Your task to perform on an android device: Open network settings Image 0: 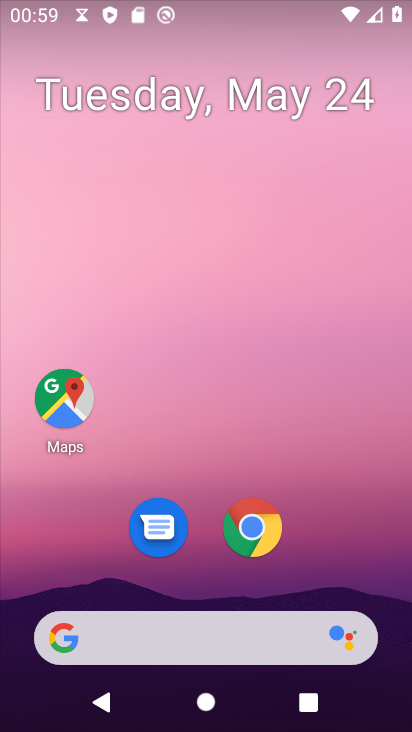
Step 0: press home button
Your task to perform on an android device: Open network settings Image 1: 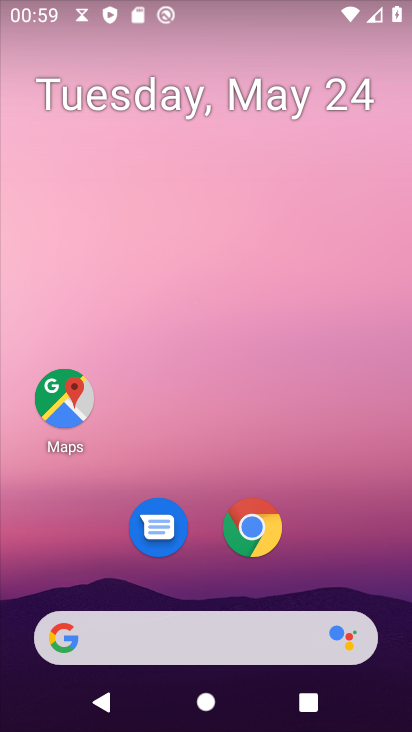
Step 1: drag from (203, 633) to (304, 137)
Your task to perform on an android device: Open network settings Image 2: 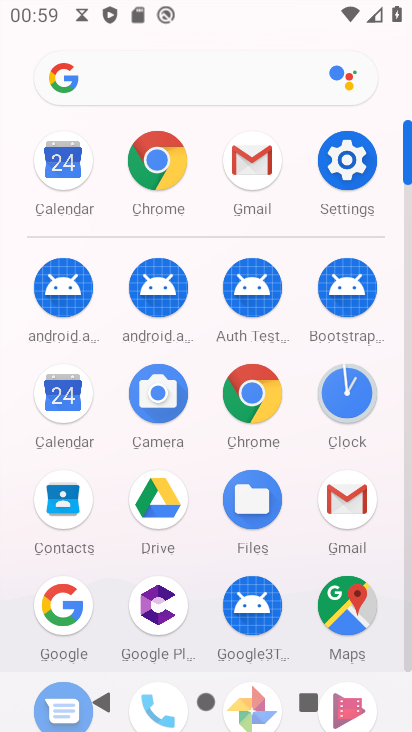
Step 2: click (360, 171)
Your task to perform on an android device: Open network settings Image 3: 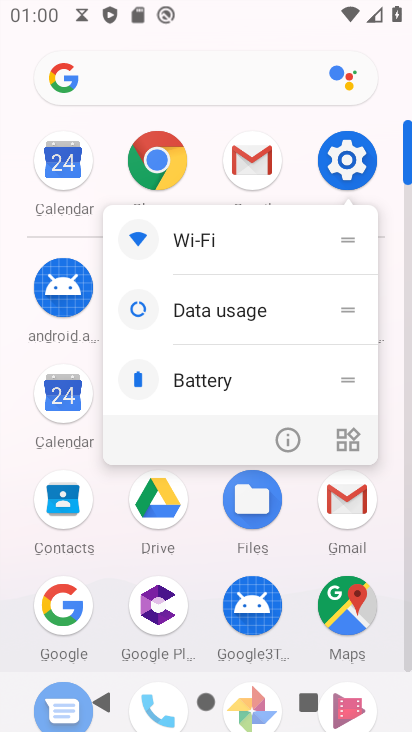
Step 3: click (360, 166)
Your task to perform on an android device: Open network settings Image 4: 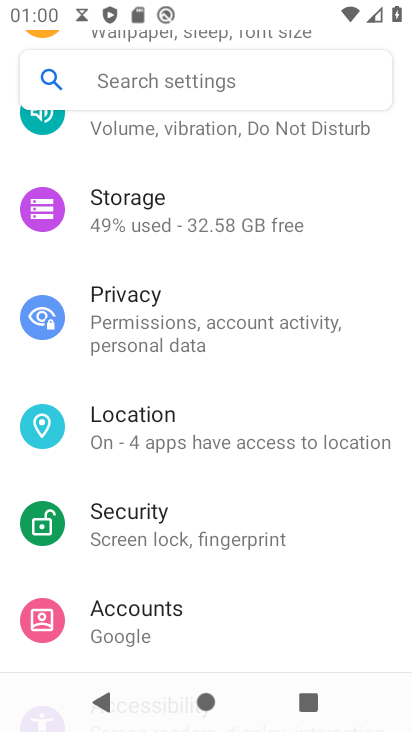
Step 4: drag from (331, 162) to (251, 561)
Your task to perform on an android device: Open network settings Image 5: 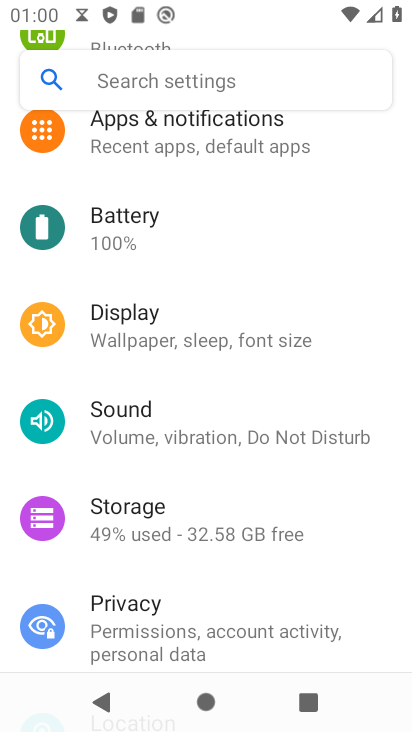
Step 5: drag from (291, 207) to (238, 537)
Your task to perform on an android device: Open network settings Image 6: 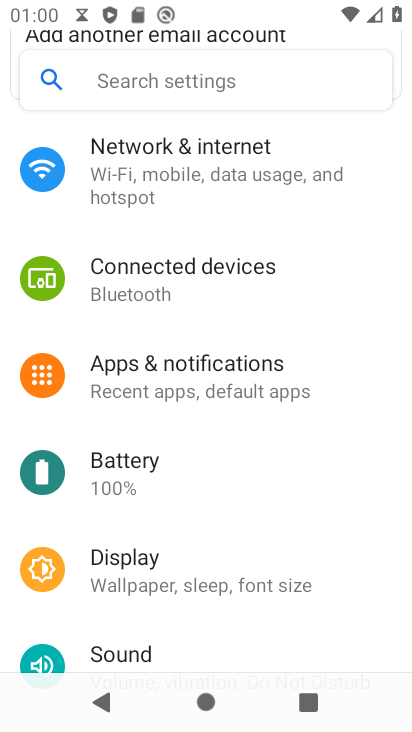
Step 6: click (191, 150)
Your task to perform on an android device: Open network settings Image 7: 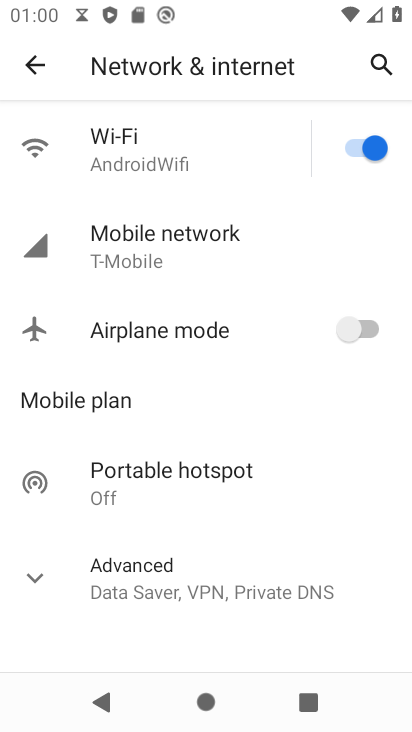
Step 7: task complete